Your task to perform on an android device: make emails show in primary in the gmail app Image 0: 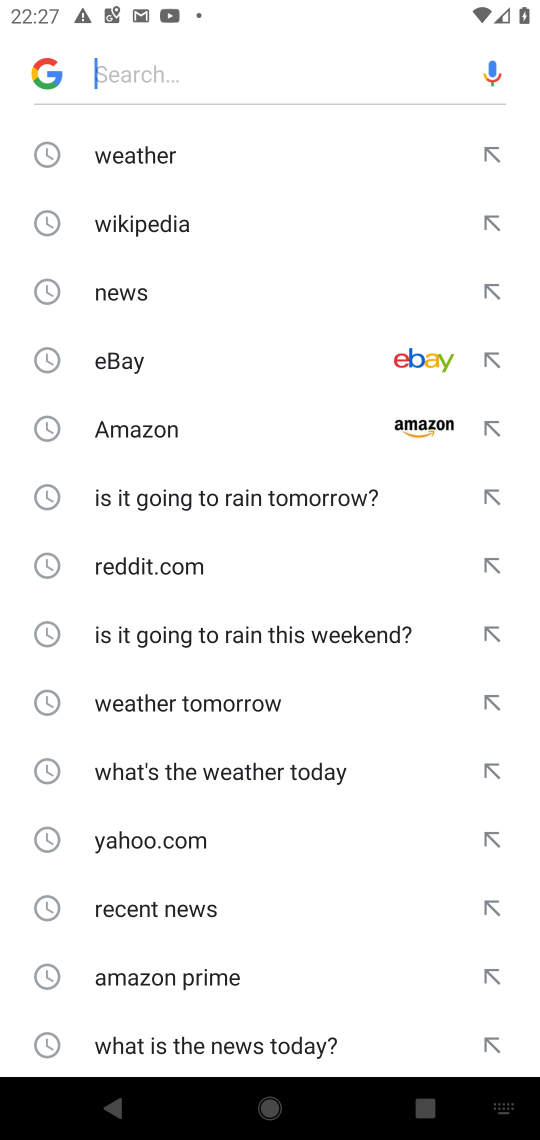
Step 0: press home button
Your task to perform on an android device: make emails show in primary in the gmail app Image 1: 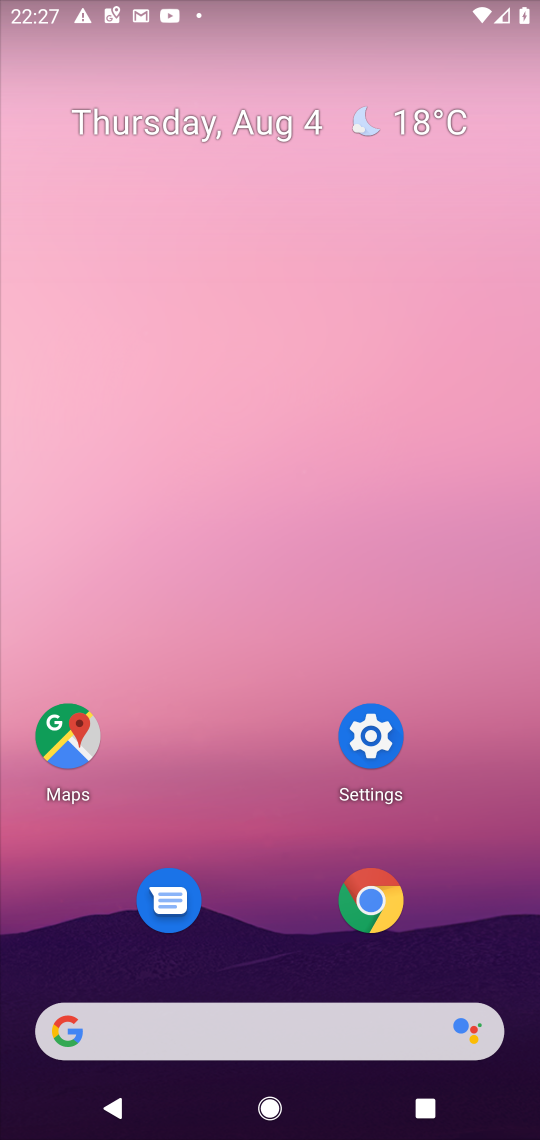
Step 1: drag from (280, 997) to (437, 17)
Your task to perform on an android device: make emails show in primary in the gmail app Image 2: 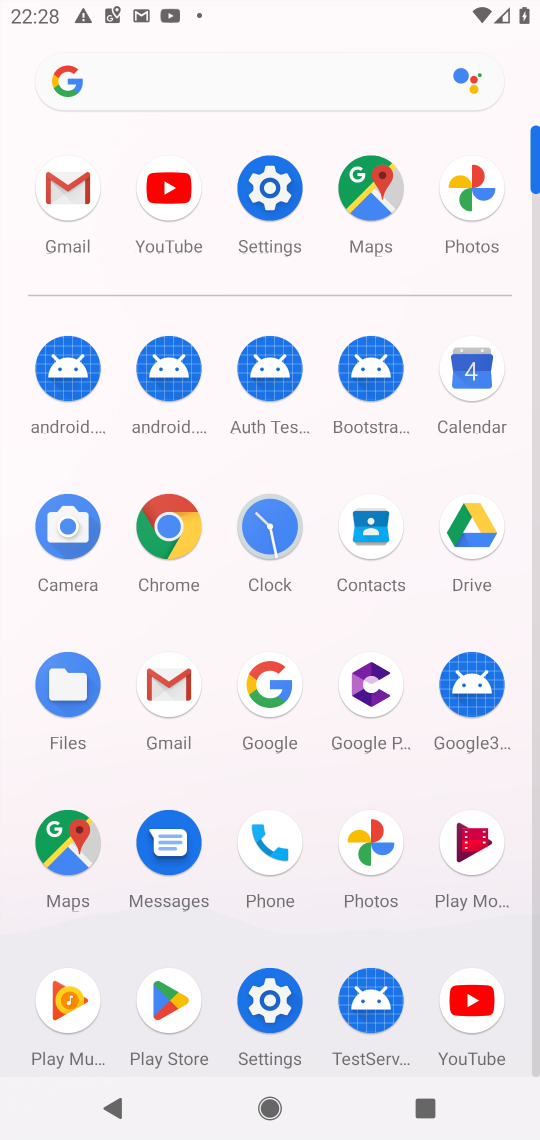
Step 2: click (161, 683)
Your task to perform on an android device: make emails show in primary in the gmail app Image 3: 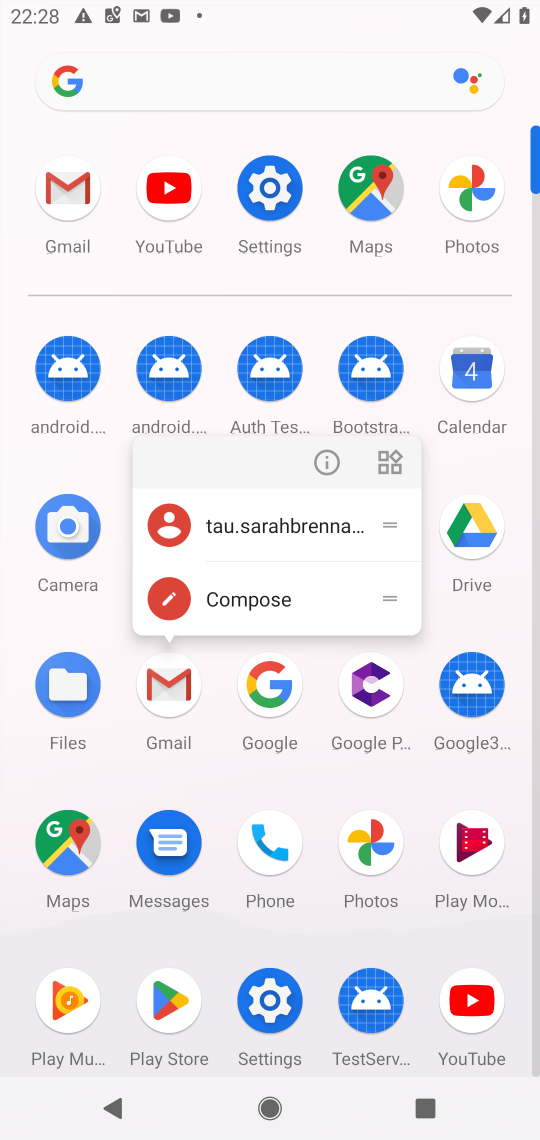
Step 3: click (163, 701)
Your task to perform on an android device: make emails show in primary in the gmail app Image 4: 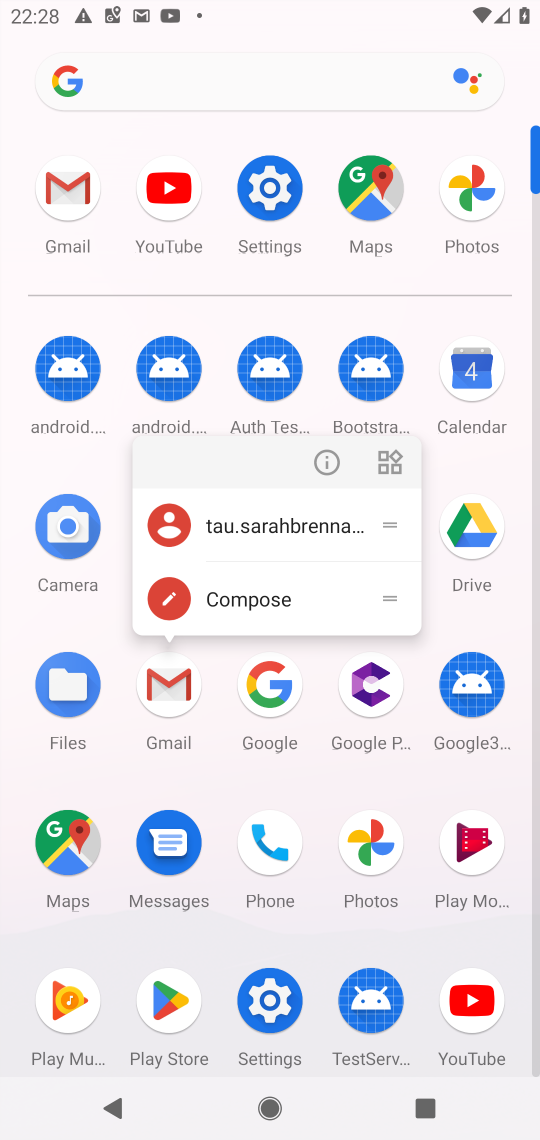
Step 4: click (180, 682)
Your task to perform on an android device: make emails show in primary in the gmail app Image 5: 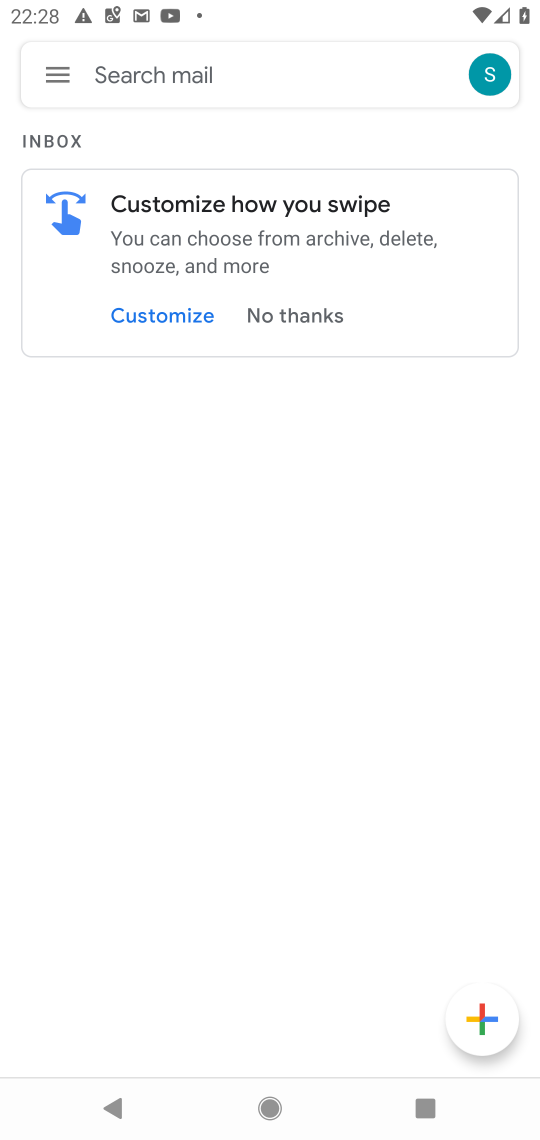
Step 5: click (58, 67)
Your task to perform on an android device: make emails show in primary in the gmail app Image 6: 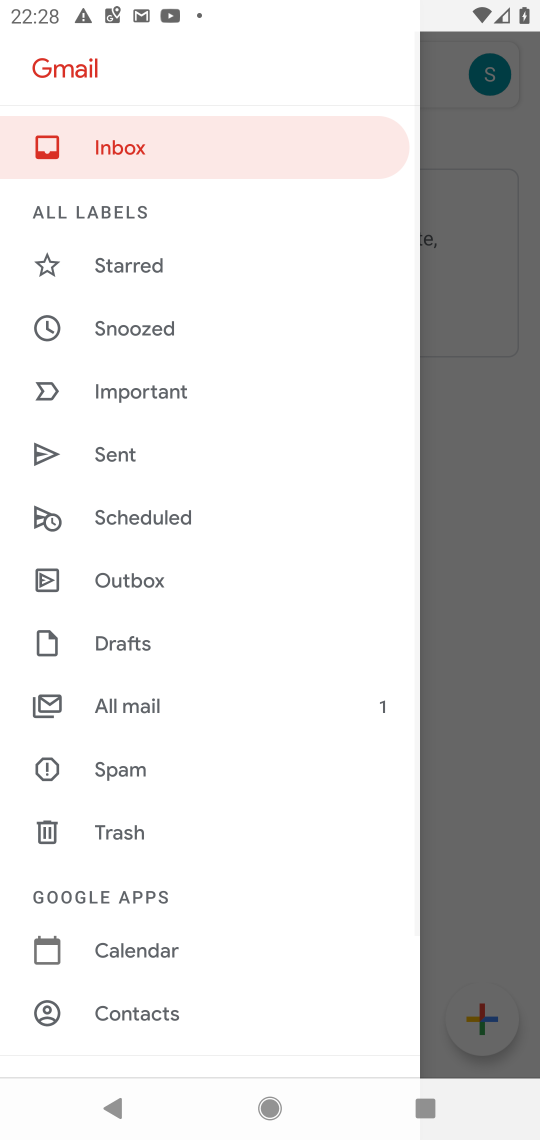
Step 6: drag from (227, 974) to (307, 254)
Your task to perform on an android device: make emails show in primary in the gmail app Image 7: 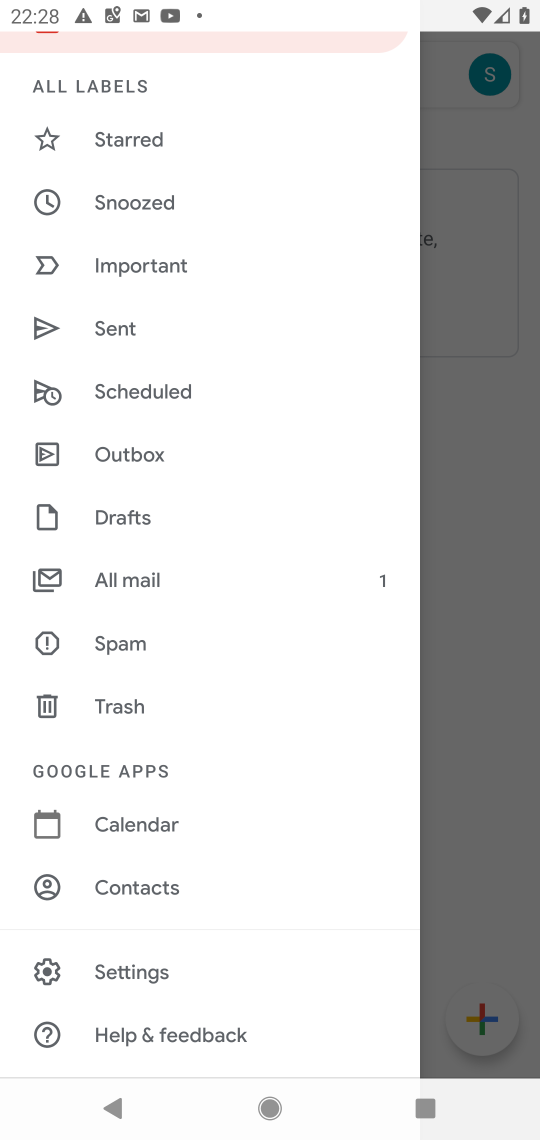
Step 7: click (147, 973)
Your task to perform on an android device: make emails show in primary in the gmail app Image 8: 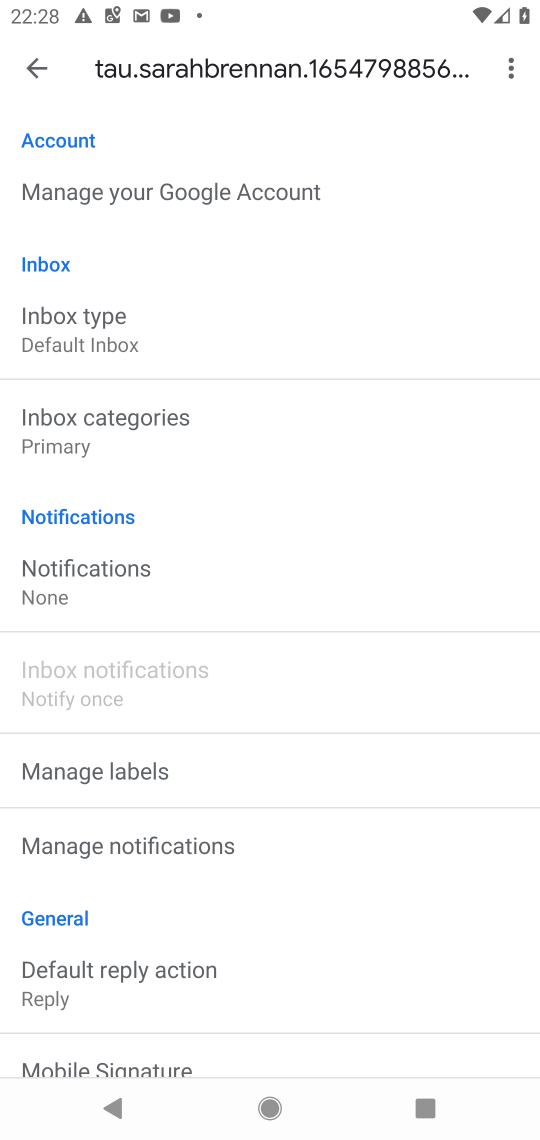
Step 8: task complete